Your task to perform on an android device: open wifi settings Image 0: 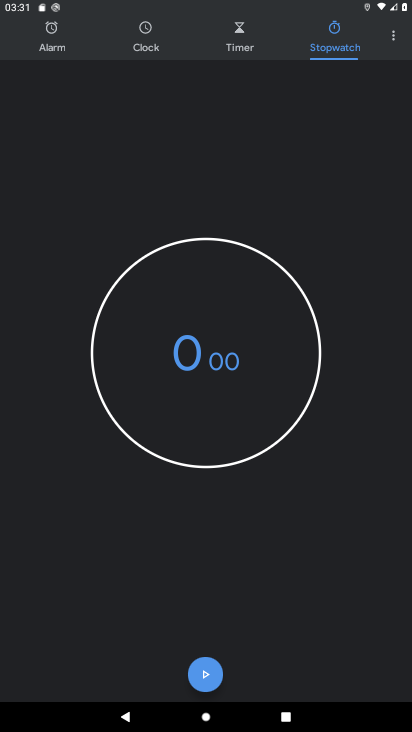
Step 0: press home button
Your task to perform on an android device: open wifi settings Image 1: 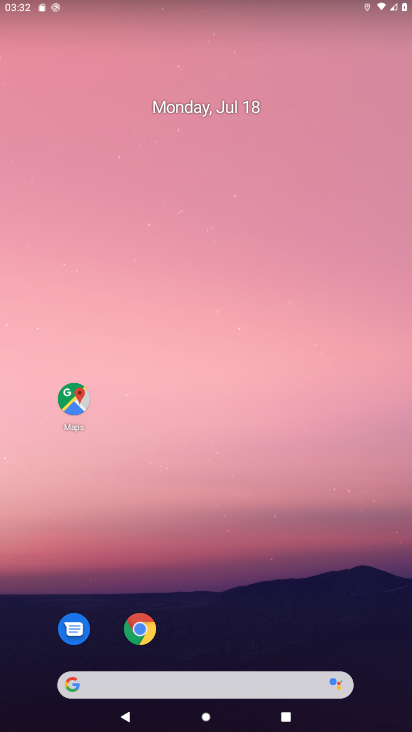
Step 1: drag from (365, 627) to (397, 164)
Your task to perform on an android device: open wifi settings Image 2: 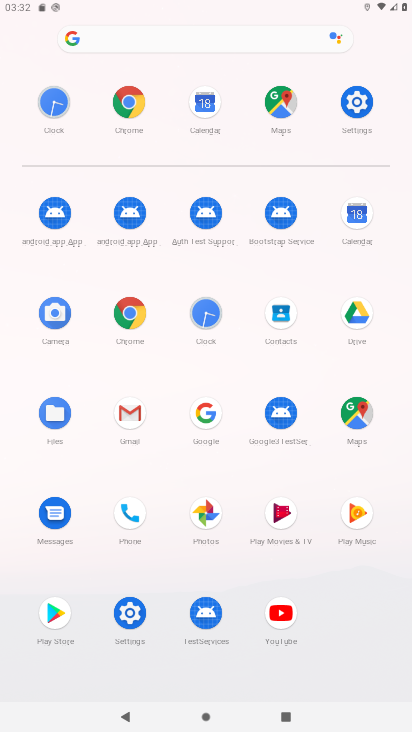
Step 2: click (361, 102)
Your task to perform on an android device: open wifi settings Image 3: 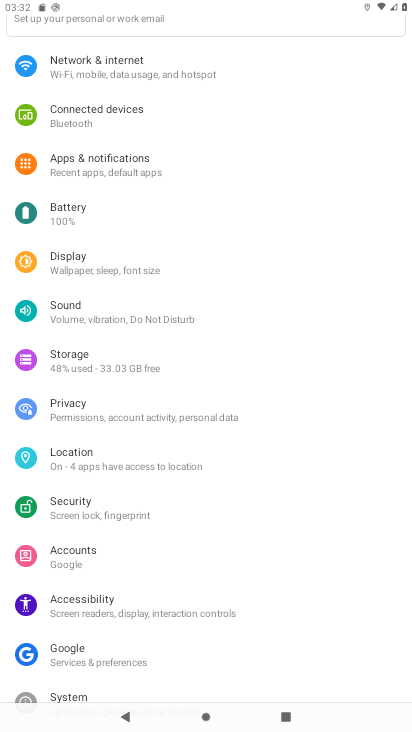
Step 3: drag from (322, 208) to (315, 284)
Your task to perform on an android device: open wifi settings Image 4: 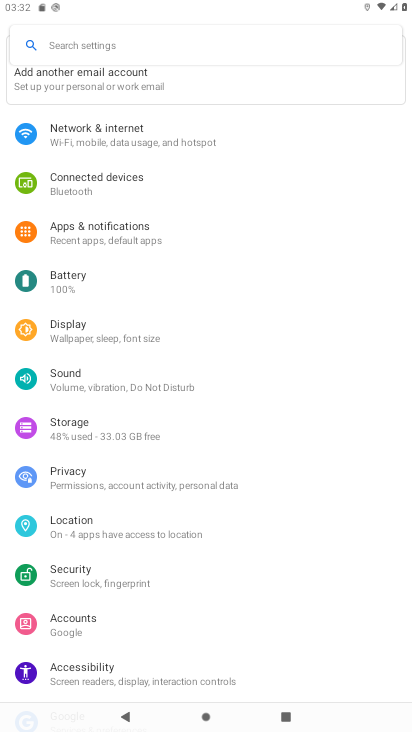
Step 4: drag from (314, 213) to (306, 375)
Your task to perform on an android device: open wifi settings Image 5: 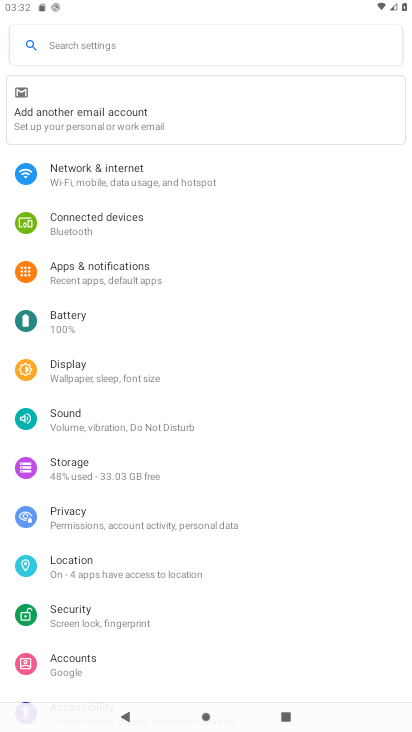
Step 5: click (215, 182)
Your task to perform on an android device: open wifi settings Image 6: 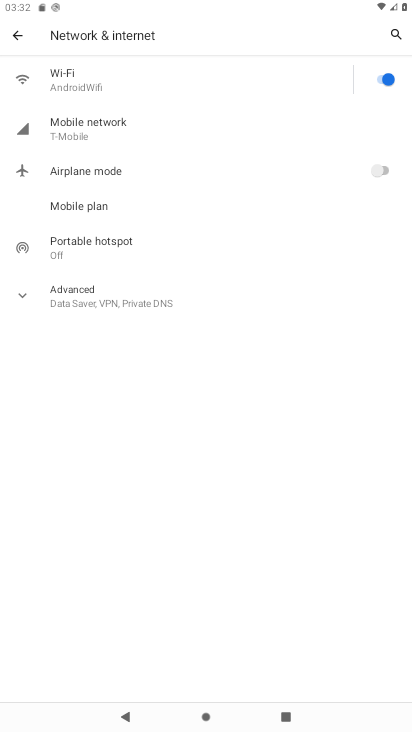
Step 6: click (94, 80)
Your task to perform on an android device: open wifi settings Image 7: 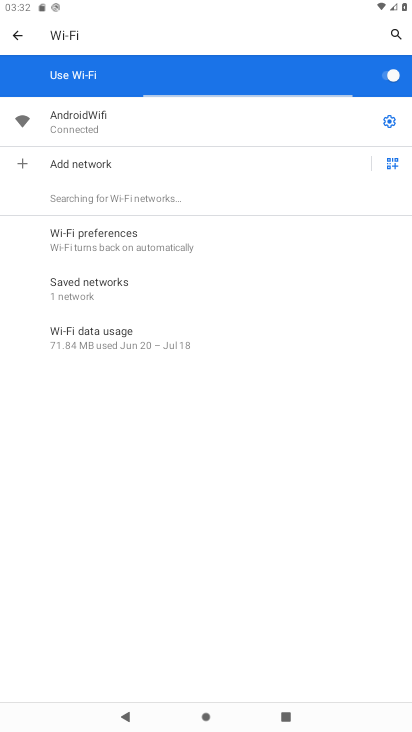
Step 7: task complete